Your task to perform on an android device: Open battery settings Image 0: 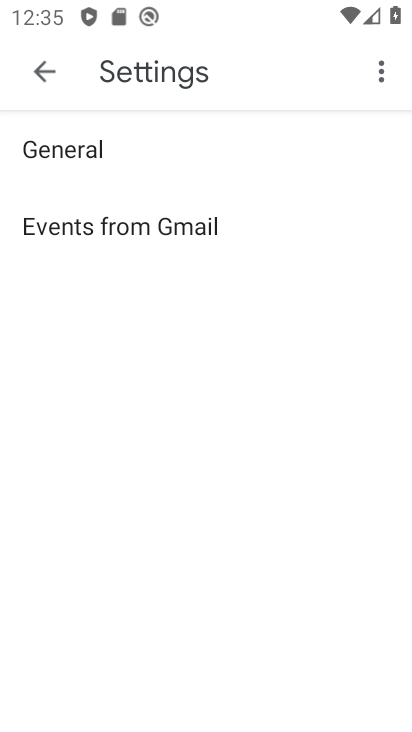
Step 0: press back button
Your task to perform on an android device: Open battery settings Image 1: 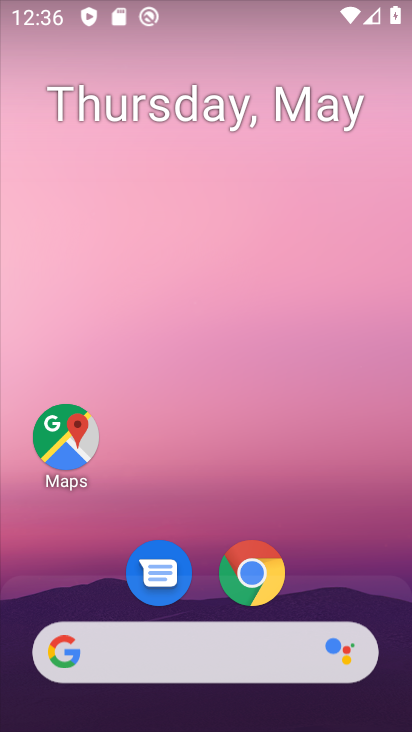
Step 1: drag from (295, 544) to (273, 0)
Your task to perform on an android device: Open battery settings Image 2: 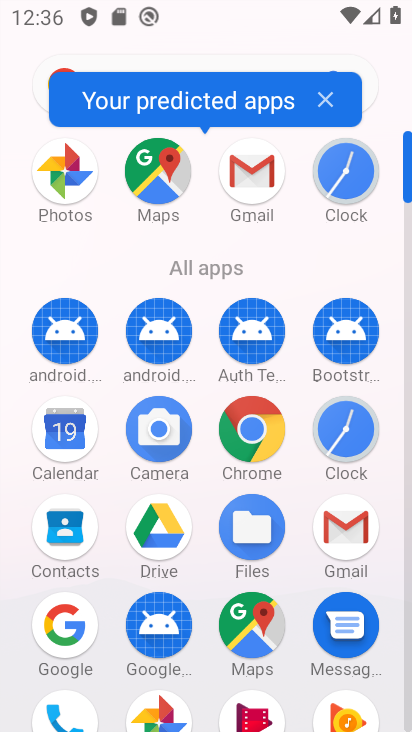
Step 2: drag from (17, 549) to (15, 179)
Your task to perform on an android device: Open battery settings Image 3: 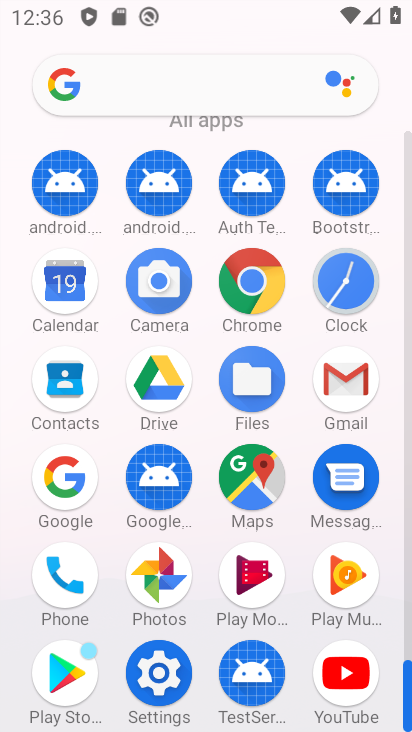
Step 3: click (156, 671)
Your task to perform on an android device: Open battery settings Image 4: 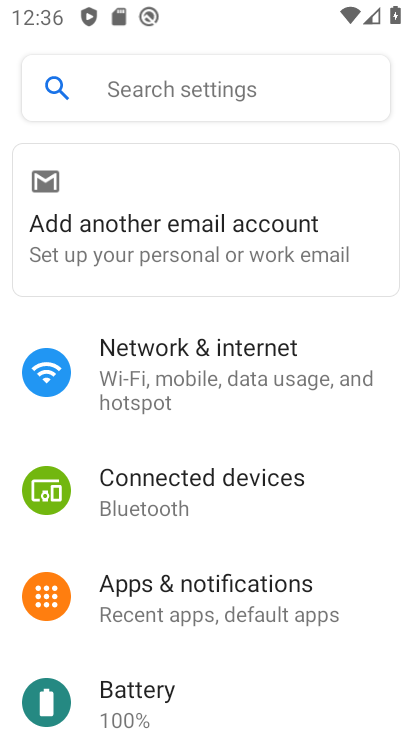
Step 4: click (184, 680)
Your task to perform on an android device: Open battery settings Image 5: 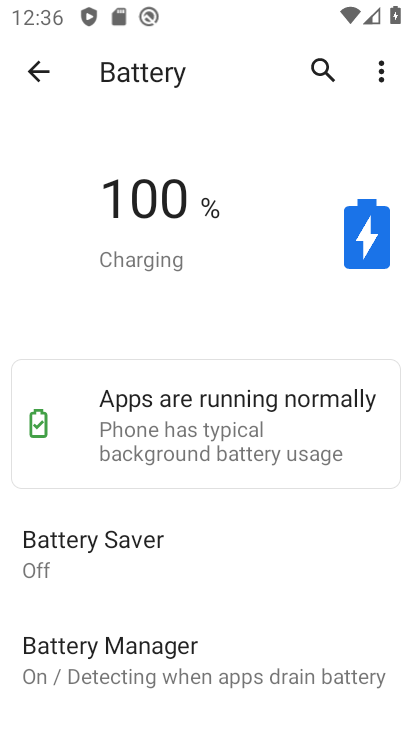
Step 5: task complete